Your task to perform on an android device: Search for Italian restaurants on Maps Image 0: 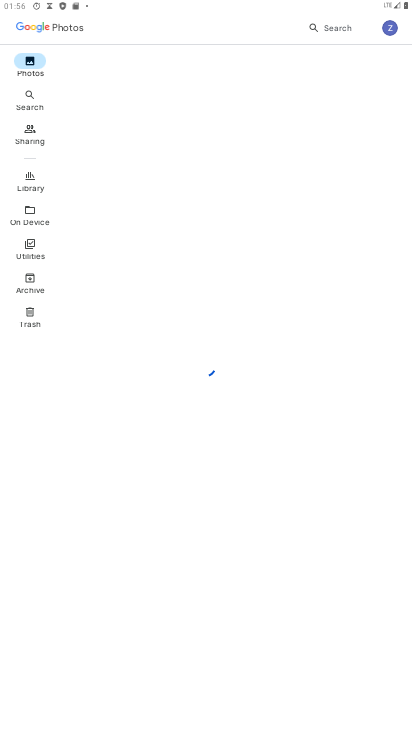
Step 0: press home button
Your task to perform on an android device: Search for Italian restaurants on Maps Image 1: 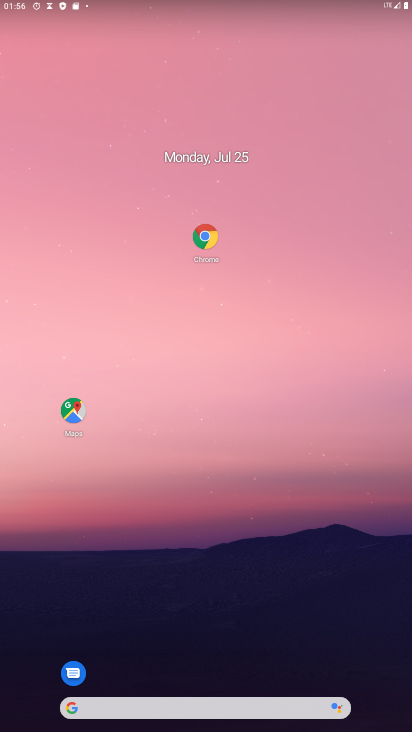
Step 1: drag from (326, 661) to (343, 4)
Your task to perform on an android device: Search for Italian restaurants on Maps Image 2: 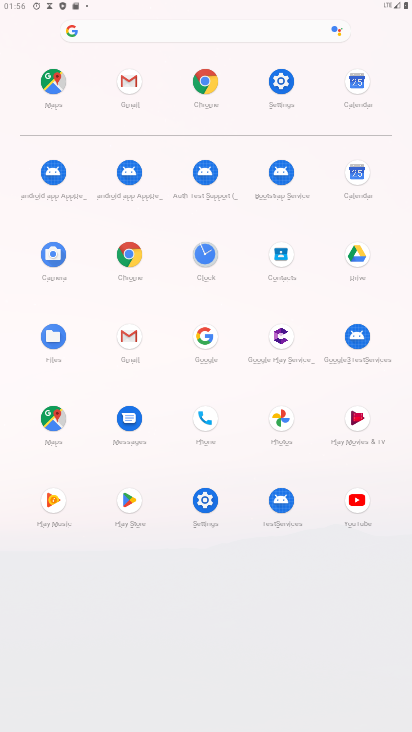
Step 2: click (57, 417)
Your task to perform on an android device: Search for Italian restaurants on Maps Image 3: 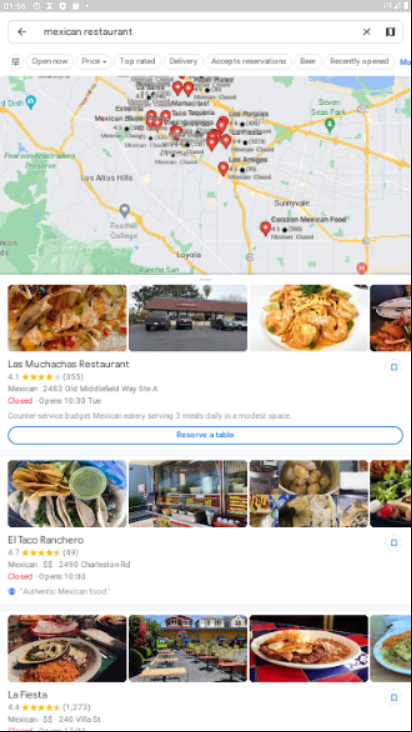
Step 3: press back button
Your task to perform on an android device: Search for Italian restaurants on Maps Image 4: 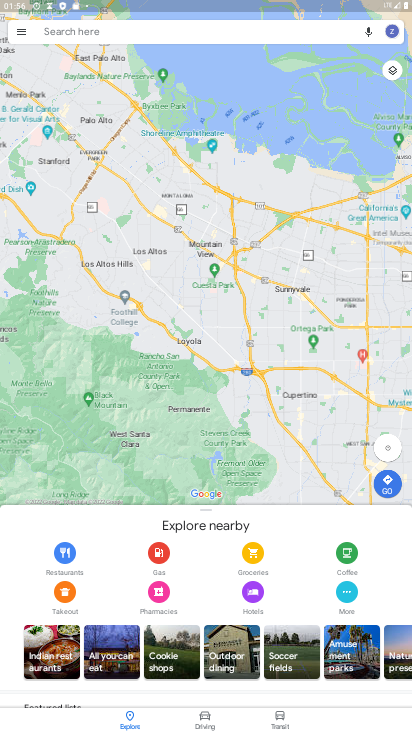
Step 4: click (70, 26)
Your task to perform on an android device: Search for Italian restaurants on Maps Image 5: 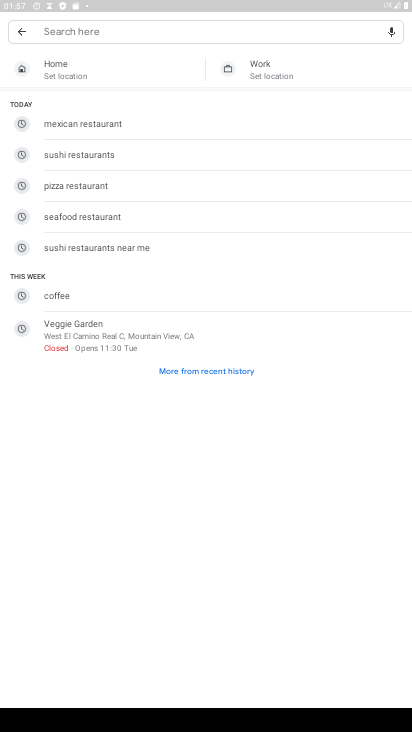
Step 5: type "italian restaurant"
Your task to perform on an android device: Search for Italian restaurants on Maps Image 6: 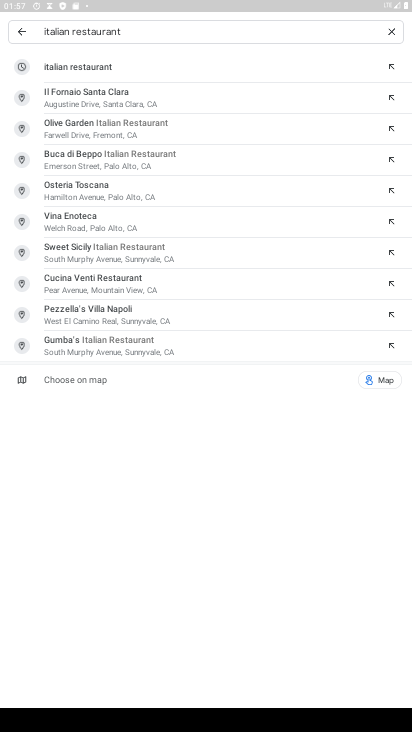
Step 6: click (155, 56)
Your task to perform on an android device: Search for Italian restaurants on Maps Image 7: 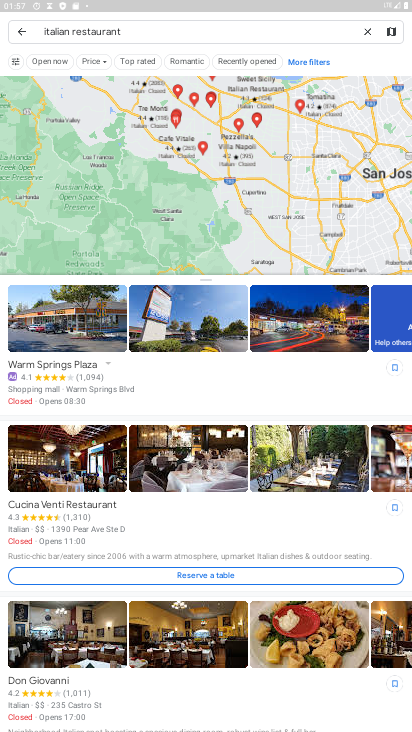
Step 7: task complete